Your task to perform on an android device: Search for vegetarian restaurants on Maps Image 0: 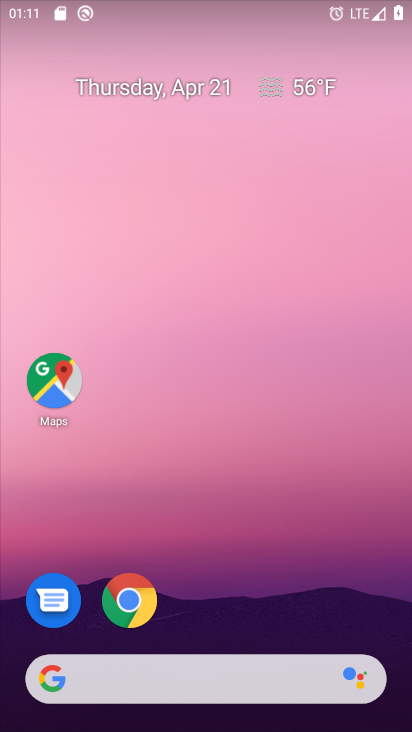
Step 0: click (50, 379)
Your task to perform on an android device: Search for vegetarian restaurants on Maps Image 1: 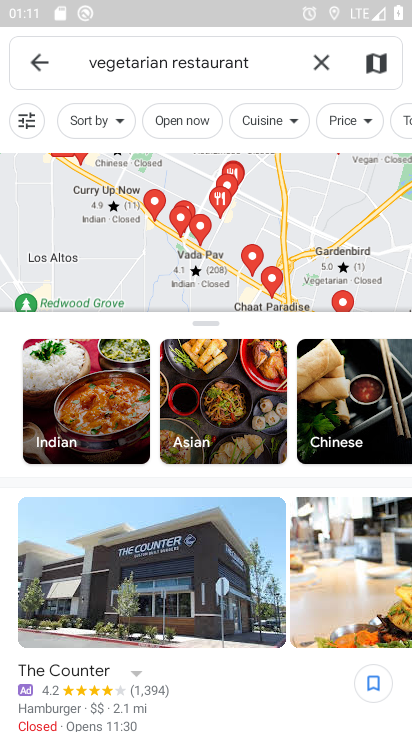
Step 1: task complete